Your task to perform on an android device: uninstall "Adobe Acrobat Reader: Edit PDF" Image 0: 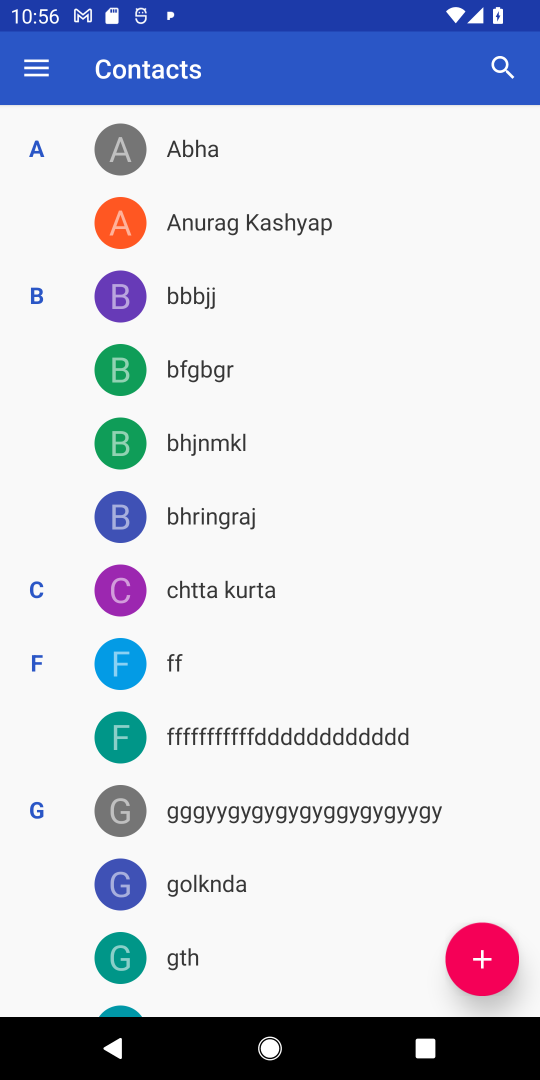
Step 0: press home button
Your task to perform on an android device: uninstall "Adobe Acrobat Reader: Edit PDF" Image 1: 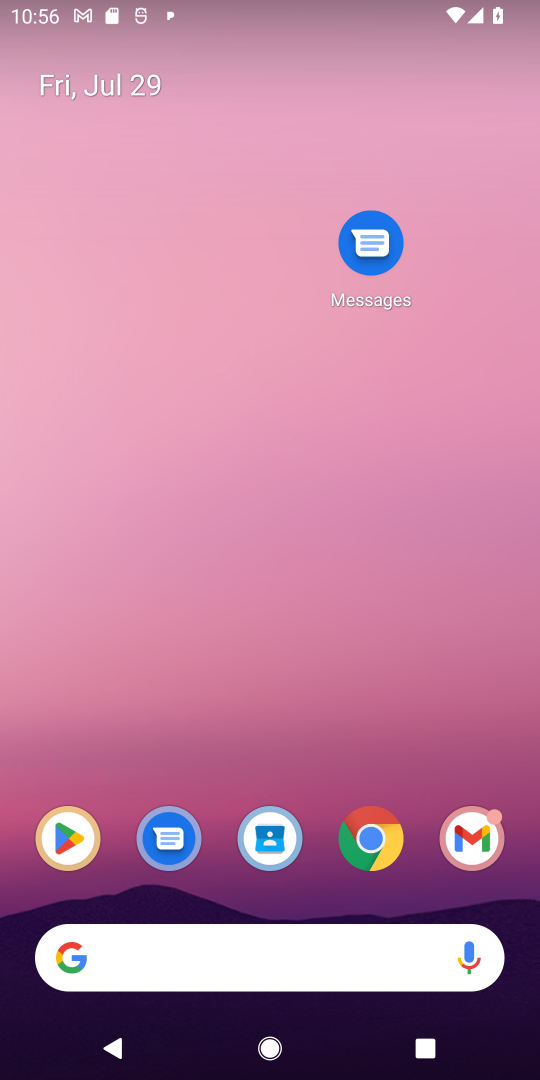
Step 1: click (58, 836)
Your task to perform on an android device: uninstall "Adobe Acrobat Reader: Edit PDF" Image 2: 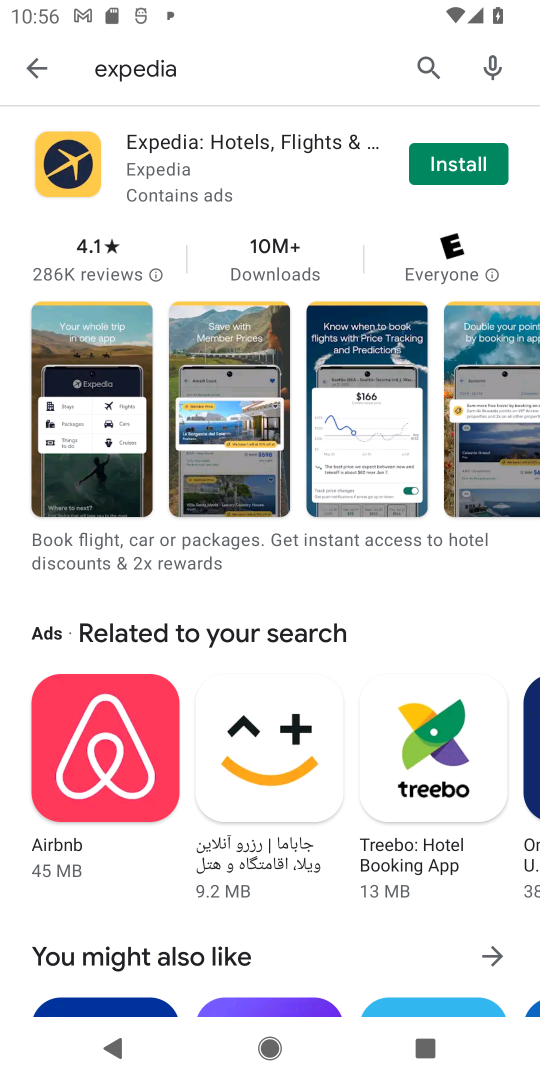
Step 2: click (218, 72)
Your task to perform on an android device: uninstall "Adobe Acrobat Reader: Edit PDF" Image 3: 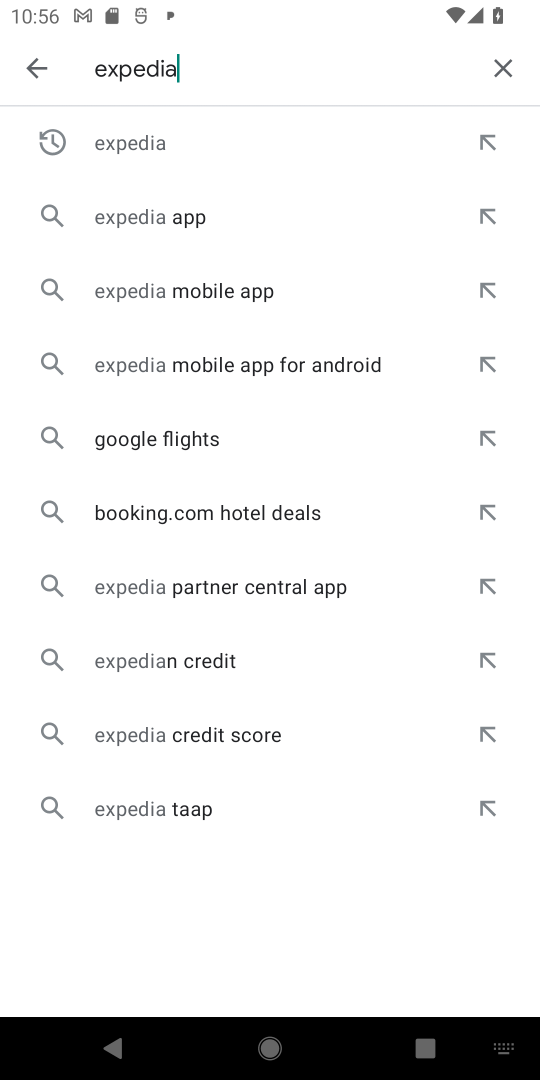
Step 3: click (497, 67)
Your task to perform on an android device: uninstall "Adobe Acrobat Reader: Edit PDF" Image 4: 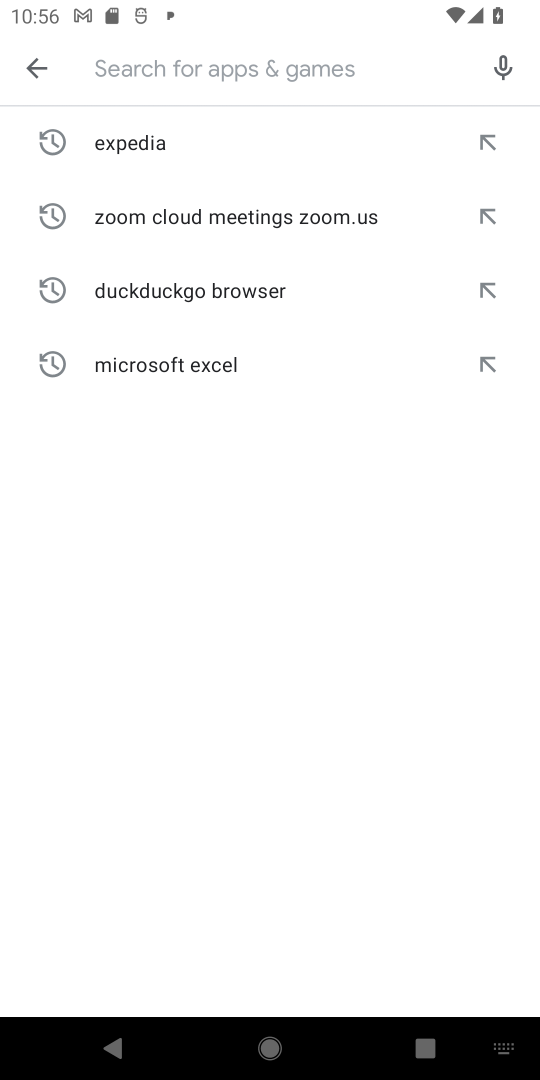
Step 4: type "Adobe Acrobat Reader"
Your task to perform on an android device: uninstall "Adobe Acrobat Reader: Edit PDF" Image 5: 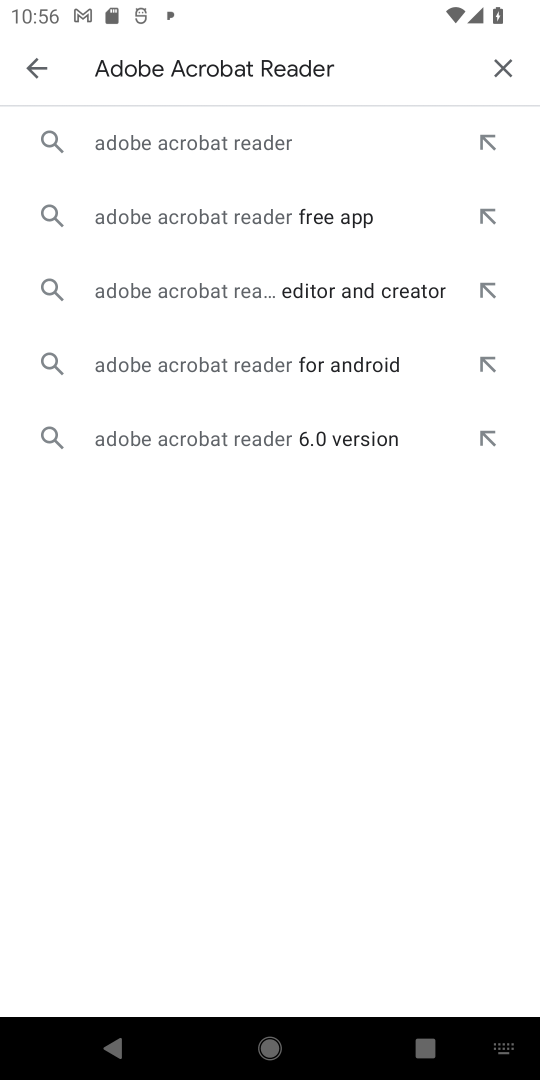
Step 5: click (224, 153)
Your task to perform on an android device: uninstall "Adobe Acrobat Reader: Edit PDF" Image 6: 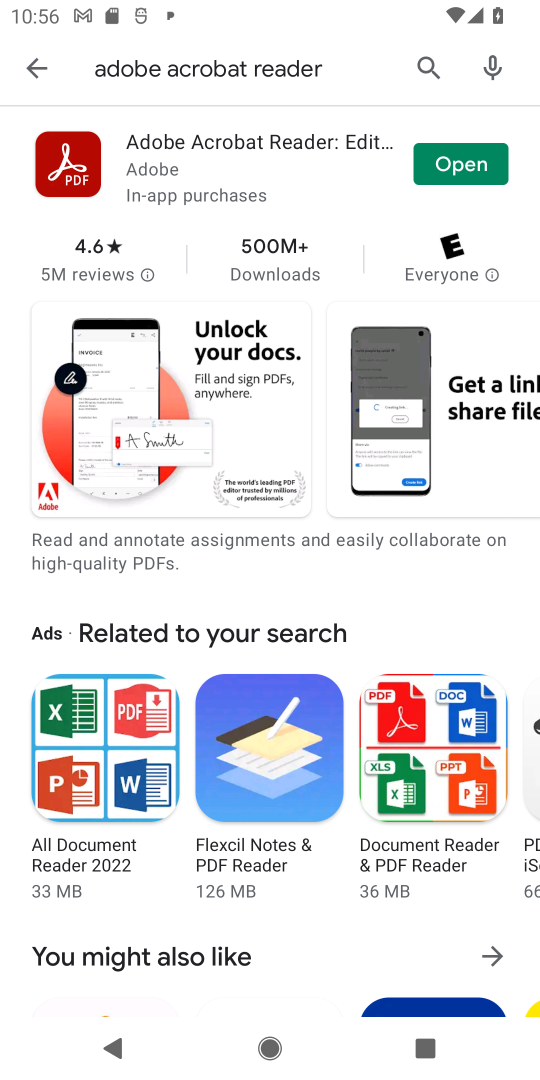
Step 6: click (253, 151)
Your task to perform on an android device: uninstall "Adobe Acrobat Reader: Edit PDF" Image 7: 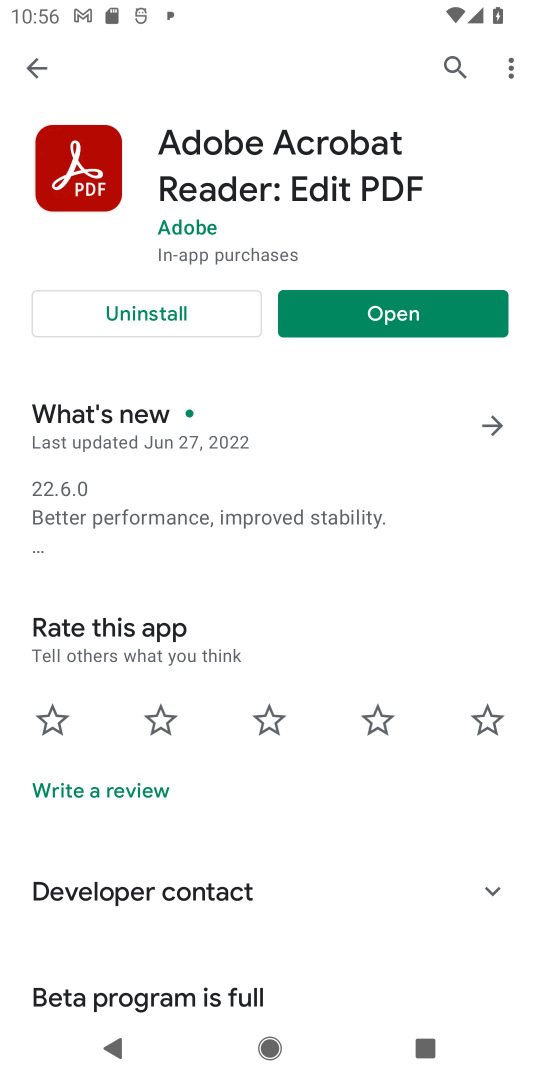
Step 7: click (150, 310)
Your task to perform on an android device: uninstall "Adobe Acrobat Reader: Edit PDF" Image 8: 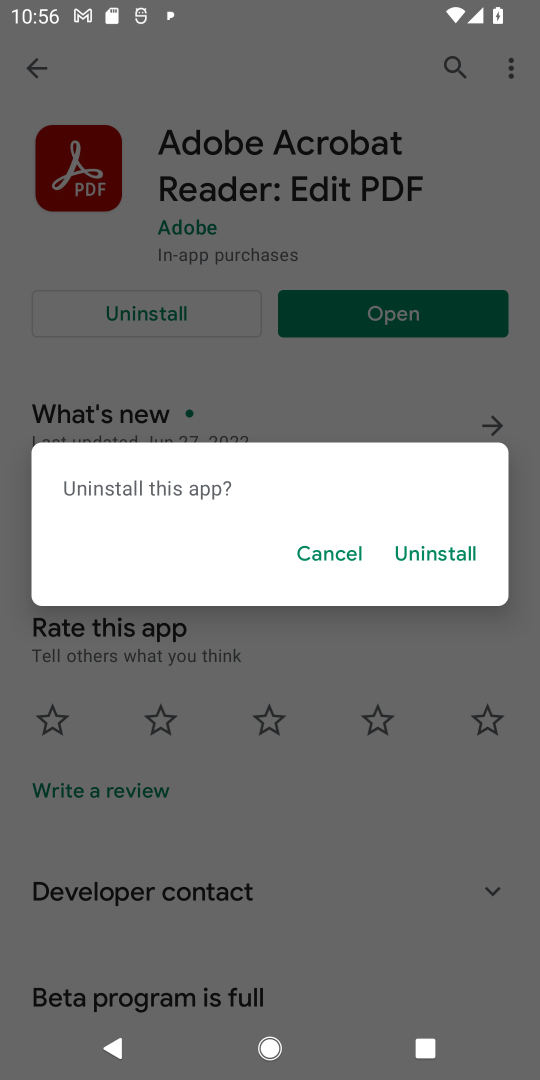
Step 8: click (438, 549)
Your task to perform on an android device: uninstall "Adobe Acrobat Reader: Edit PDF" Image 9: 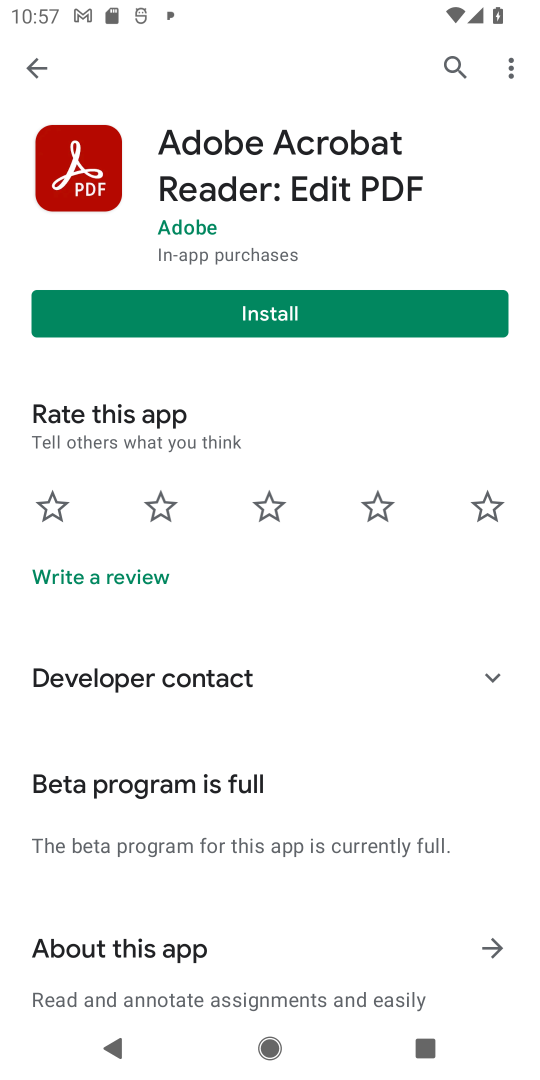
Step 9: task complete